Your task to perform on an android device: check data usage Image 0: 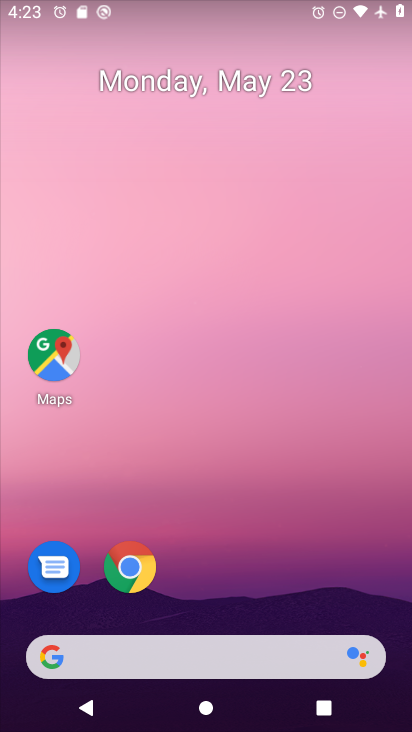
Step 0: drag from (396, 623) to (373, 55)
Your task to perform on an android device: check data usage Image 1: 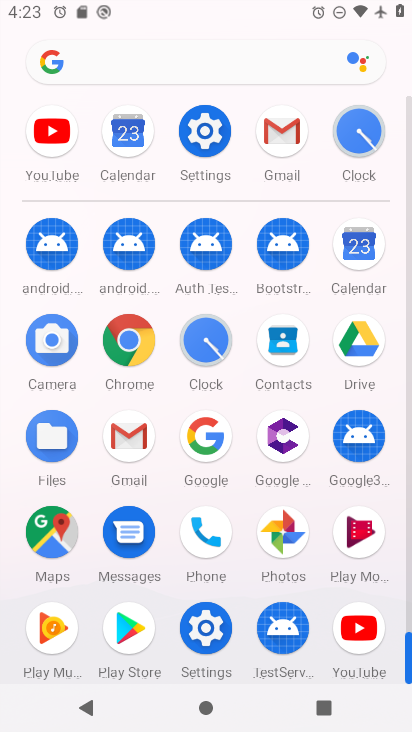
Step 1: click (202, 622)
Your task to perform on an android device: check data usage Image 2: 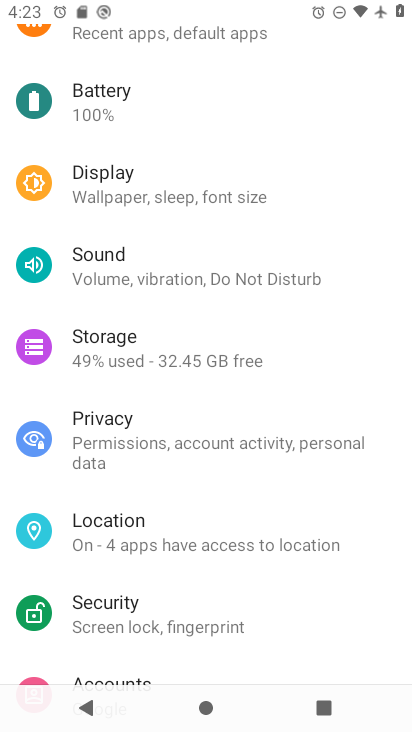
Step 2: drag from (234, 142) to (217, 498)
Your task to perform on an android device: check data usage Image 3: 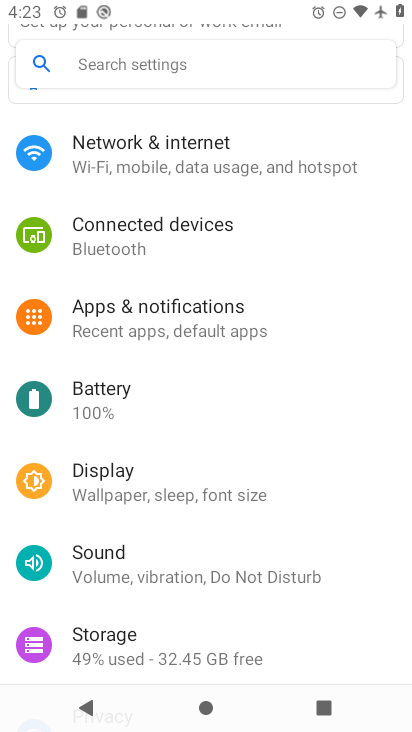
Step 3: click (135, 159)
Your task to perform on an android device: check data usage Image 4: 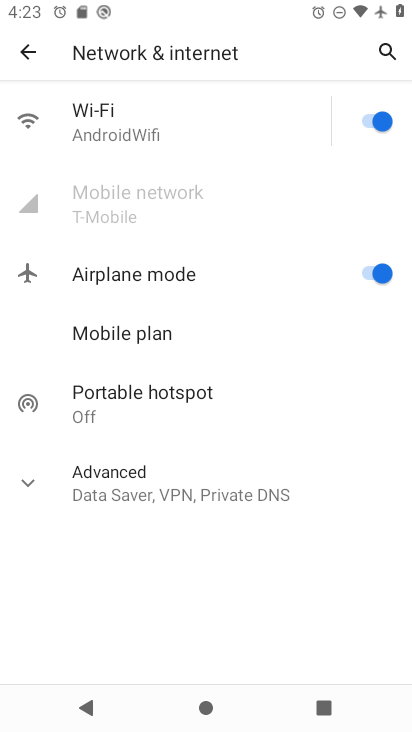
Step 4: click (362, 271)
Your task to perform on an android device: check data usage Image 5: 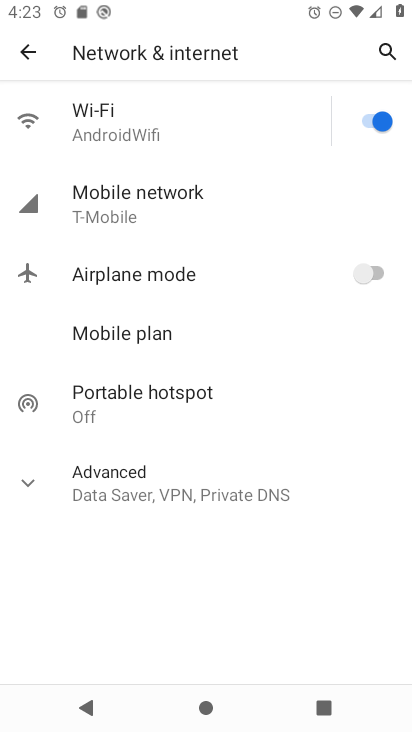
Step 5: click (158, 203)
Your task to perform on an android device: check data usage Image 6: 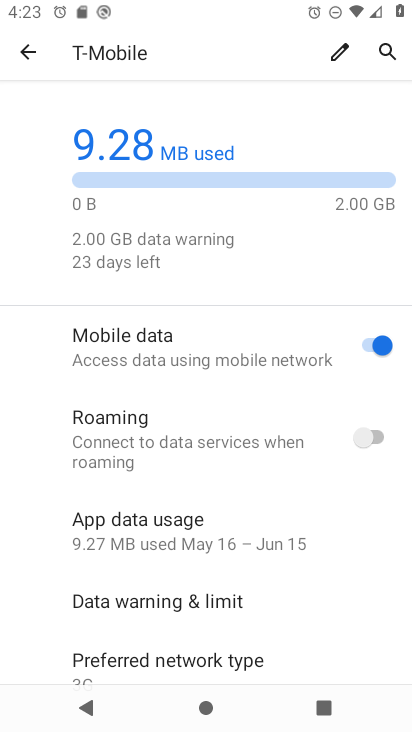
Step 6: task complete